Your task to perform on an android device: Go to internet settings Image 0: 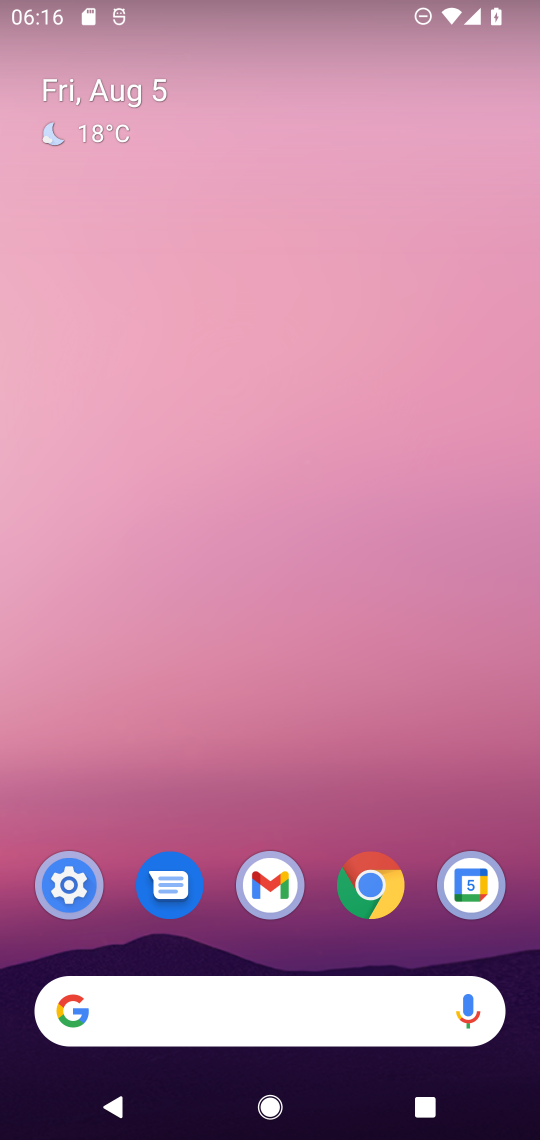
Step 0: drag from (308, 909) to (263, 153)
Your task to perform on an android device: Go to internet settings Image 1: 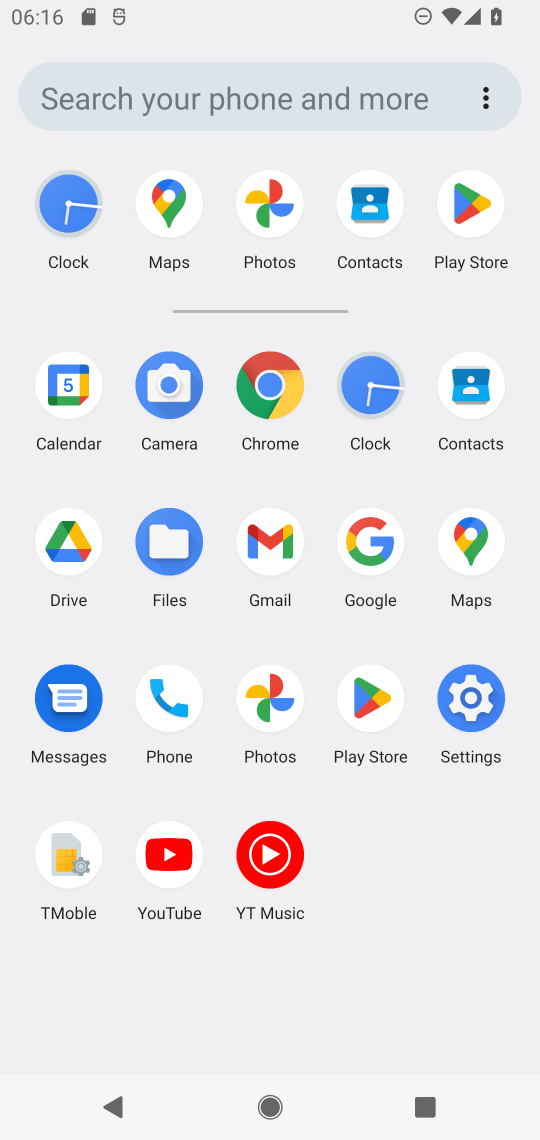
Step 1: click (464, 695)
Your task to perform on an android device: Go to internet settings Image 2: 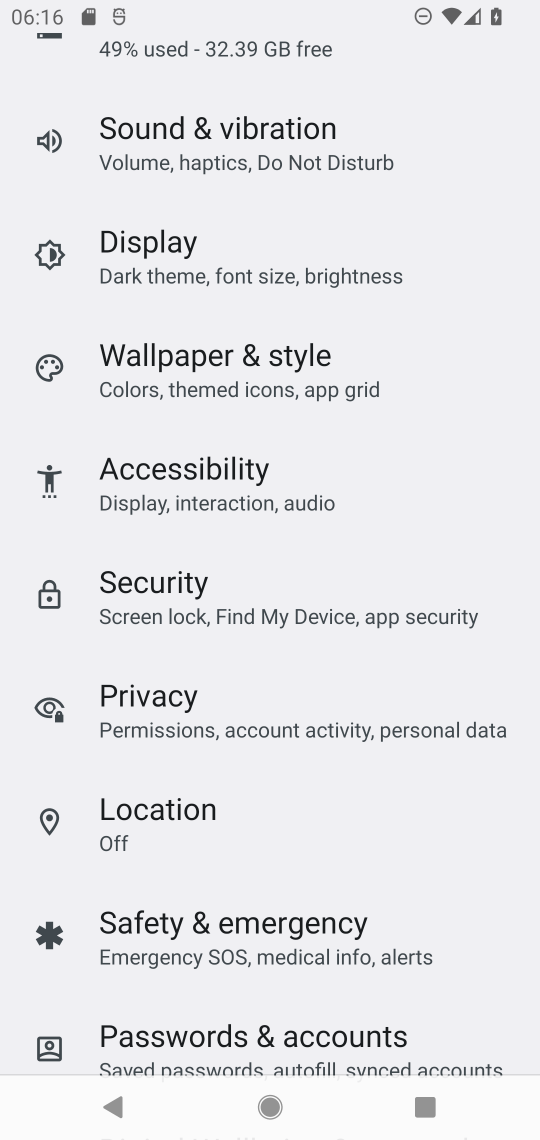
Step 2: drag from (241, 194) to (277, 882)
Your task to perform on an android device: Go to internet settings Image 3: 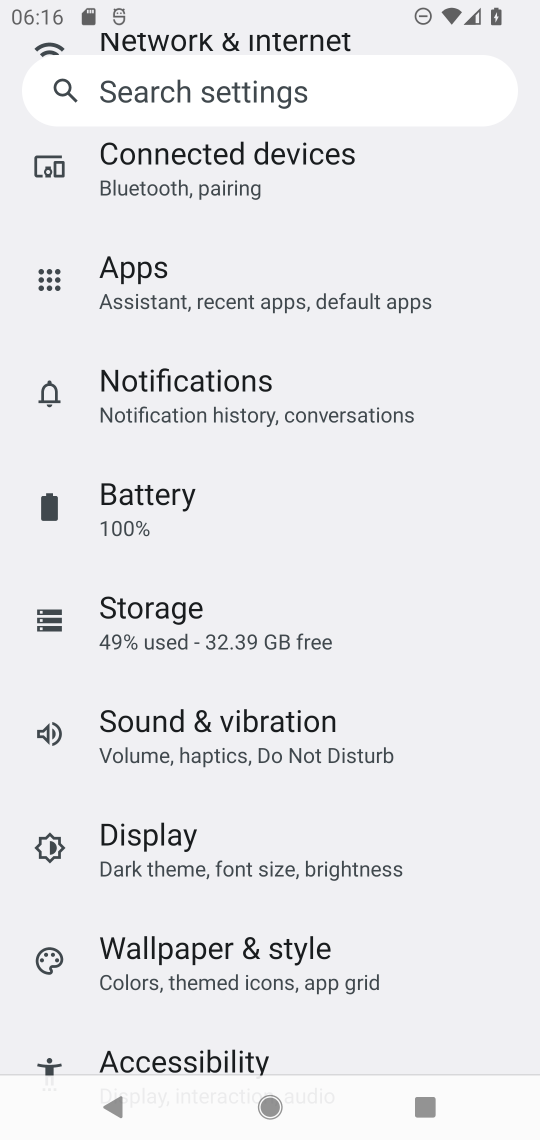
Step 3: drag from (218, 229) to (211, 817)
Your task to perform on an android device: Go to internet settings Image 4: 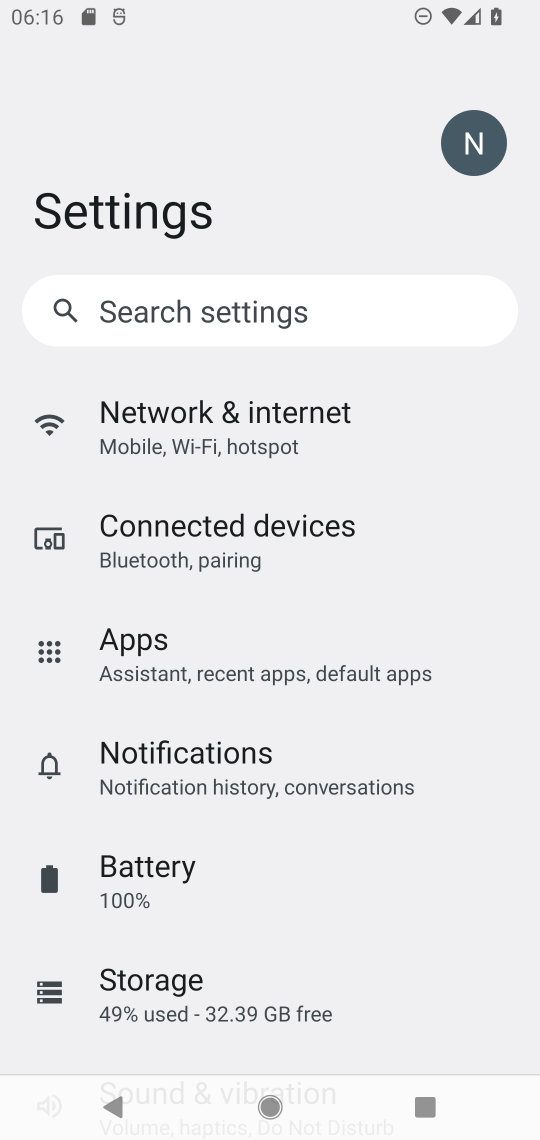
Step 4: click (178, 441)
Your task to perform on an android device: Go to internet settings Image 5: 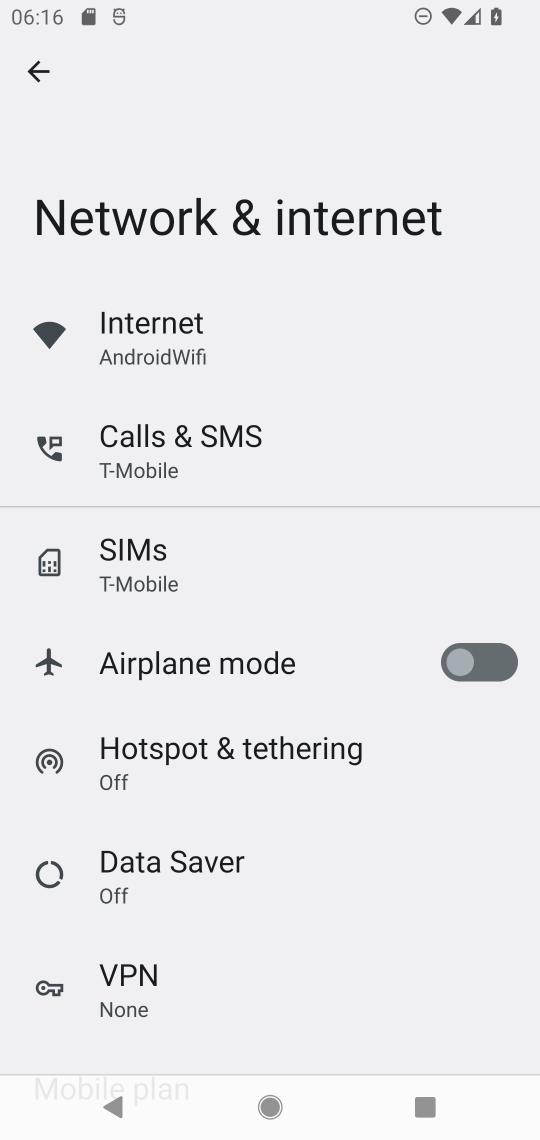
Step 5: click (151, 345)
Your task to perform on an android device: Go to internet settings Image 6: 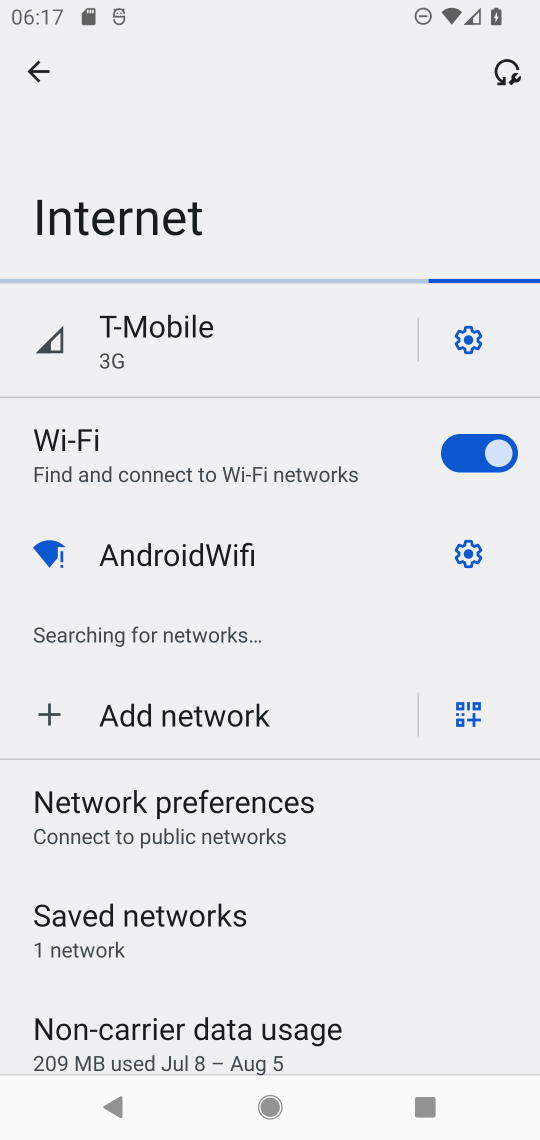
Step 6: task complete